Your task to perform on an android device: Open Reddit.com Image 0: 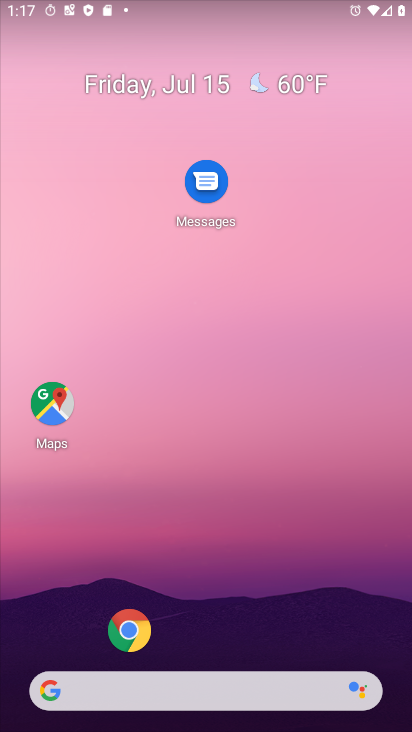
Step 0: click (80, 681)
Your task to perform on an android device: Open Reddit.com Image 1: 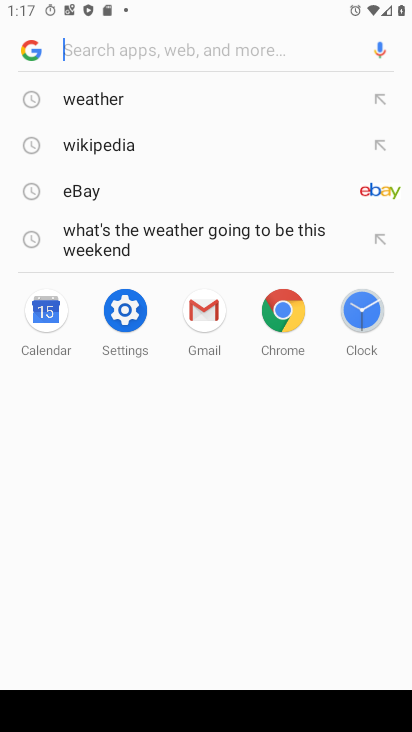
Step 1: click (12, 722)
Your task to perform on an android device: Open Reddit.com Image 2: 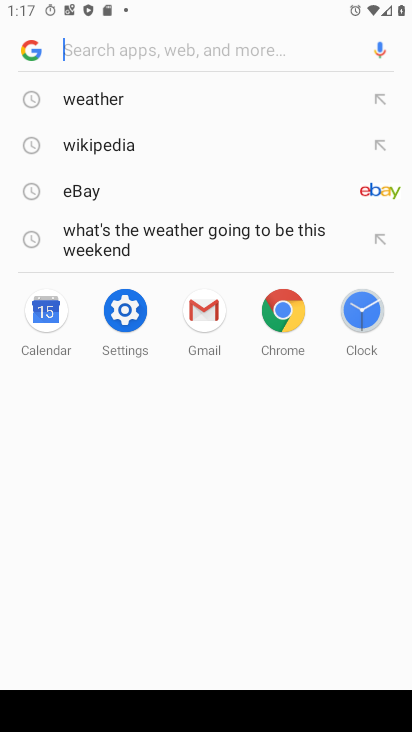
Step 2: click (268, 720)
Your task to perform on an android device: Open Reddit.com Image 3: 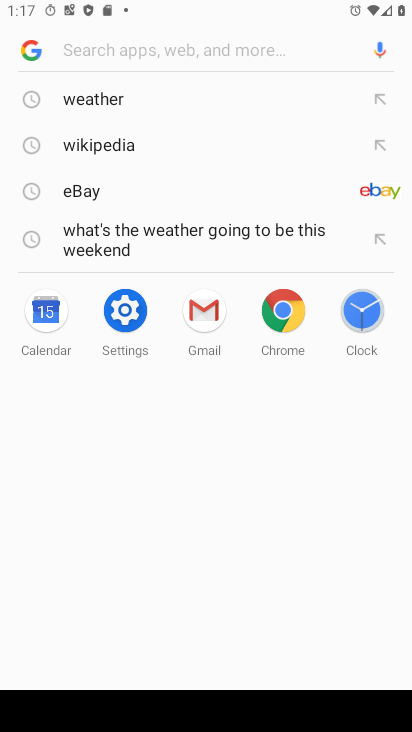
Step 3: type "Reddit.com"
Your task to perform on an android device: Open Reddit.com Image 4: 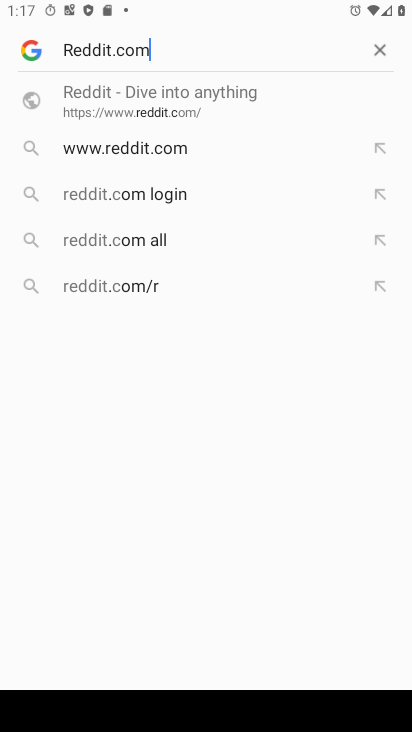
Step 4: type ""
Your task to perform on an android device: Open Reddit.com Image 5: 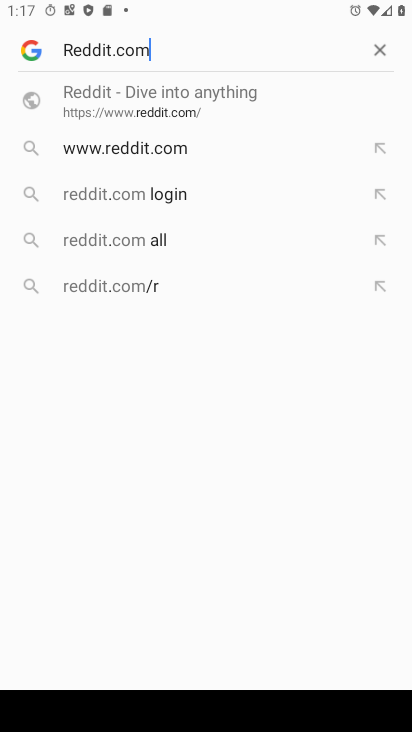
Step 5: type ""
Your task to perform on an android device: Open Reddit.com Image 6: 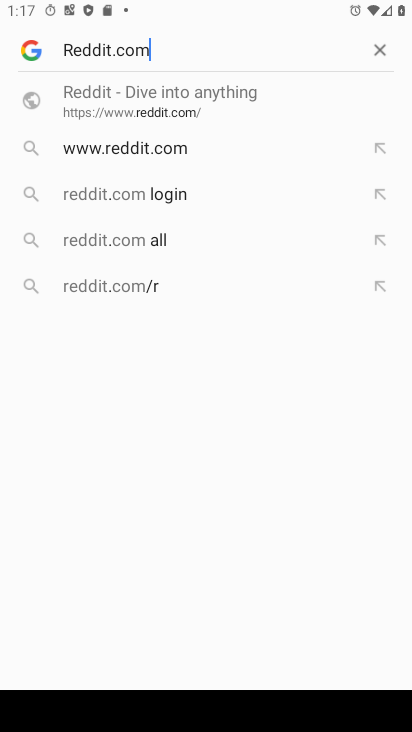
Step 6: type ""
Your task to perform on an android device: Open Reddit.com Image 7: 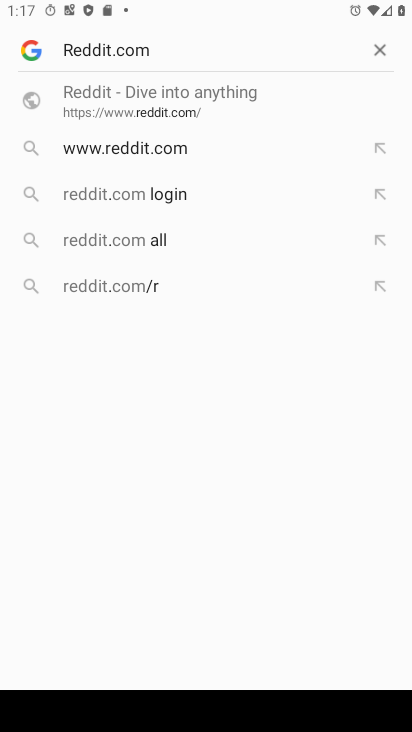
Step 7: task complete